Your task to perform on an android device: Go to Wikipedia Image 0: 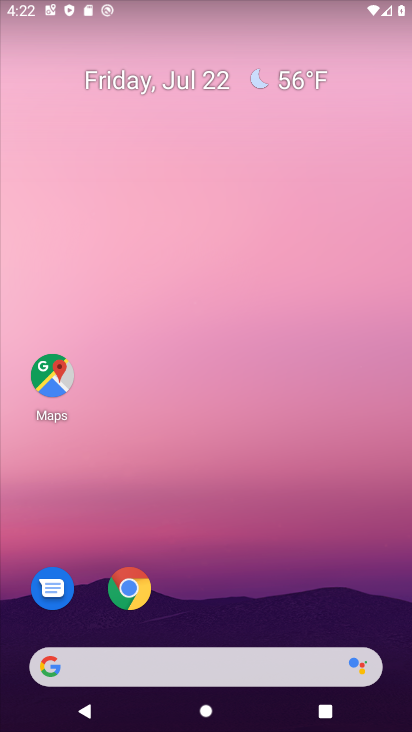
Step 0: click (125, 606)
Your task to perform on an android device: Go to Wikipedia Image 1: 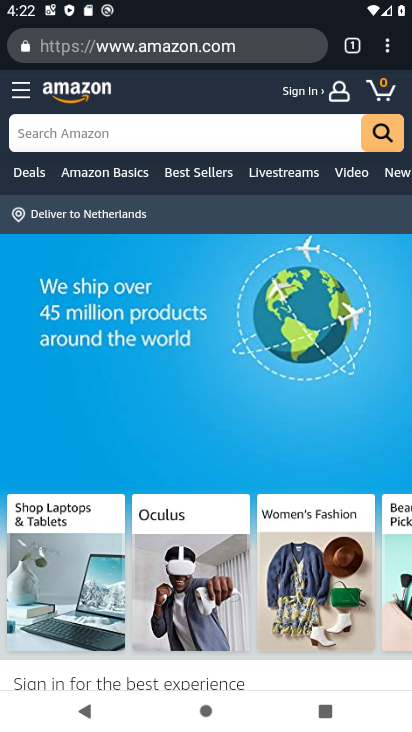
Step 1: click (355, 59)
Your task to perform on an android device: Go to Wikipedia Image 2: 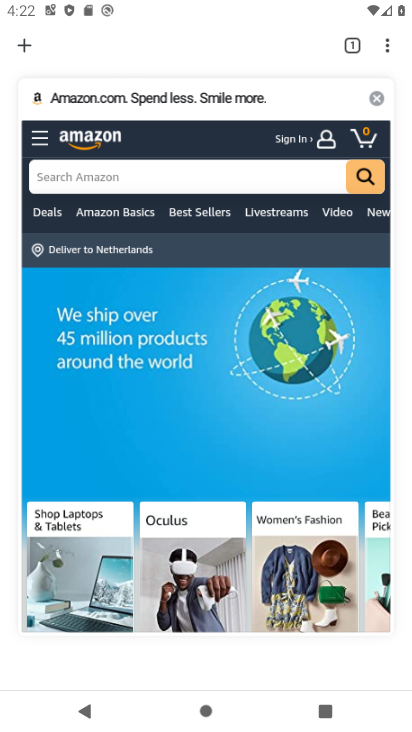
Step 2: click (19, 45)
Your task to perform on an android device: Go to Wikipedia Image 3: 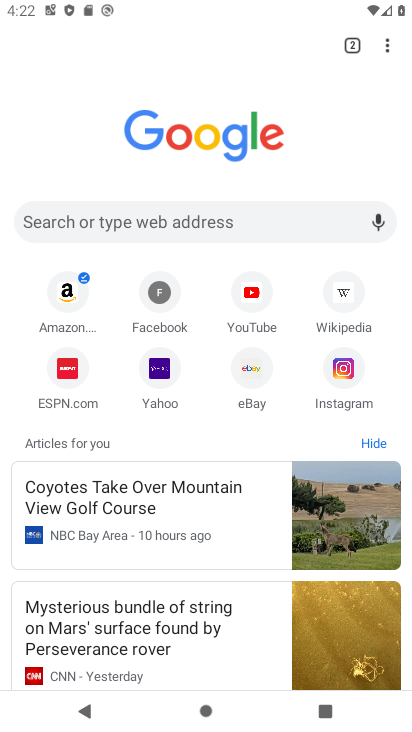
Step 3: click (344, 309)
Your task to perform on an android device: Go to Wikipedia Image 4: 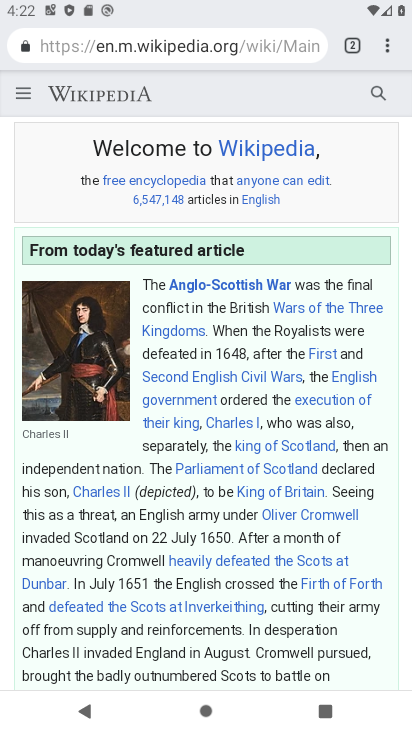
Step 4: task complete